Your task to perform on an android device: Go to settings Image 0: 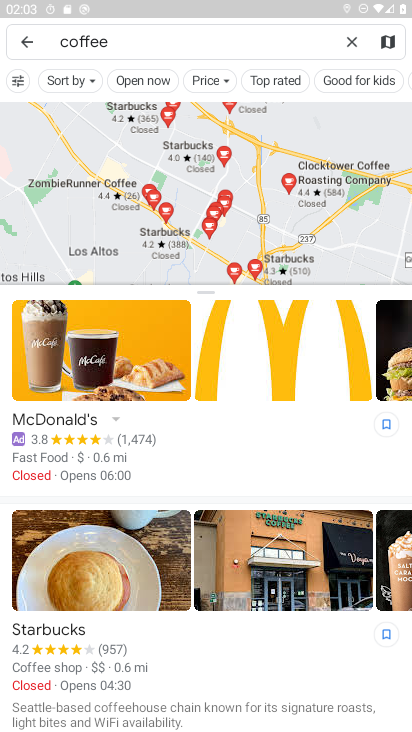
Step 0: press home button
Your task to perform on an android device: Go to settings Image 1: 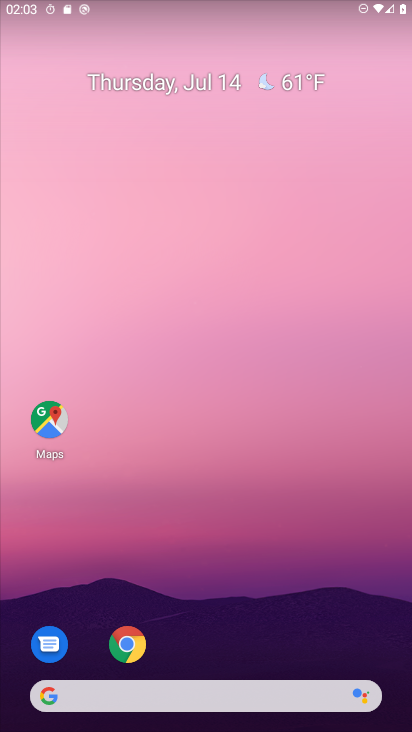
Step 1: drag from (294, 589) to (397, 71)
Your task to perform on an android device: Go to settings Image 2: 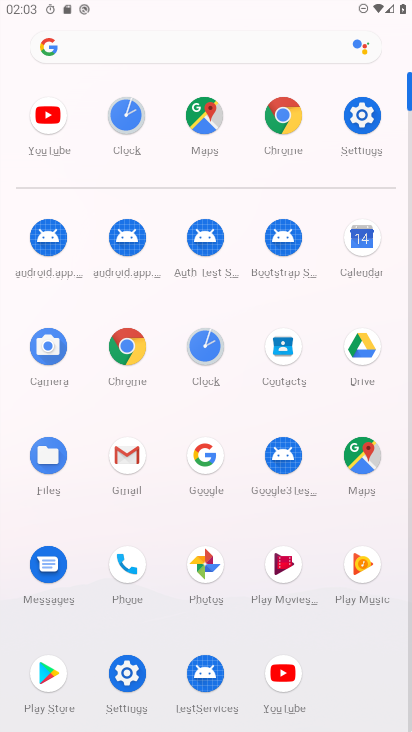
Step 2: click (361, 126)
Your task to perform on an android device: Go to settings Image 3: 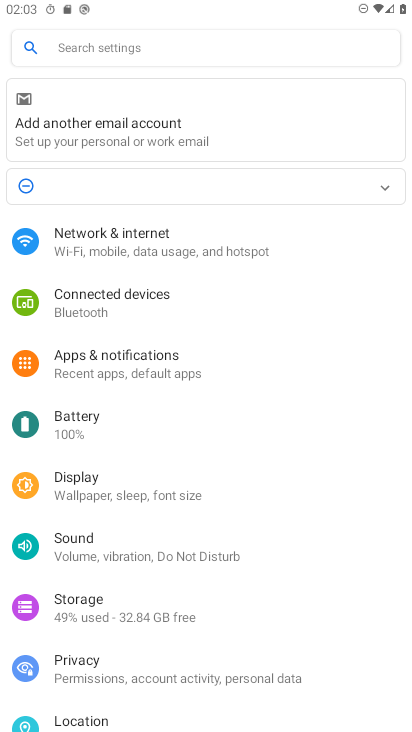
Step 3: task complete